Your task to perform on an android device: clear all cookies in the chrome app Image 0: 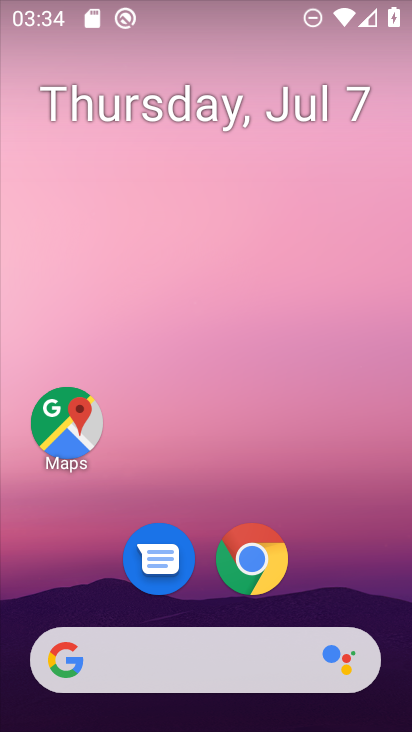
Step 0: drag from (367, 592) to (371, 156)
Your task to perform on an android device: clear all cookies in the chrome app Image 1: 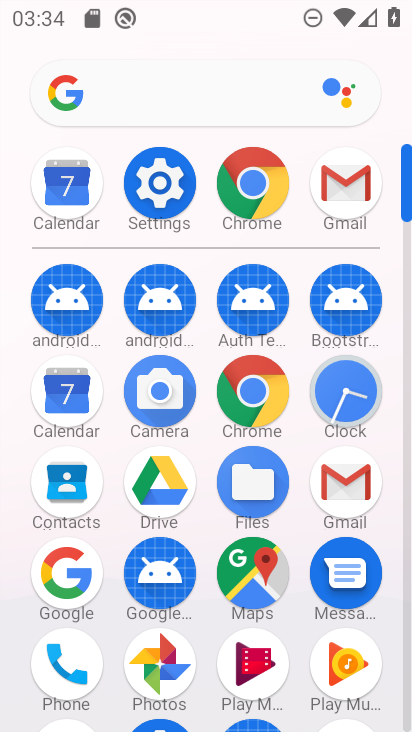
Step 1: click (268, 392)
Your task to perform on an android device: clear all cookies in the chrome app Image 2: 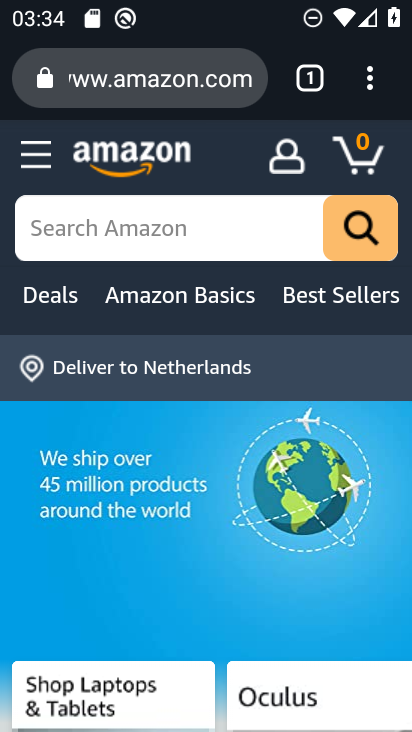
Step 2: click (370, 90)
Your task to perform on an android device: clear all cookies in the chrome app Image 3: 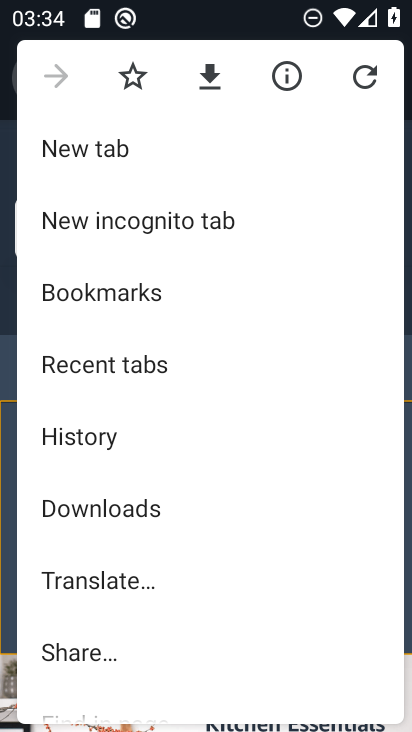
Step 3: drag from (339, 540) to (346, 451)
Your task to perform on an android device: clear all cookies in the chrome app Image 4: 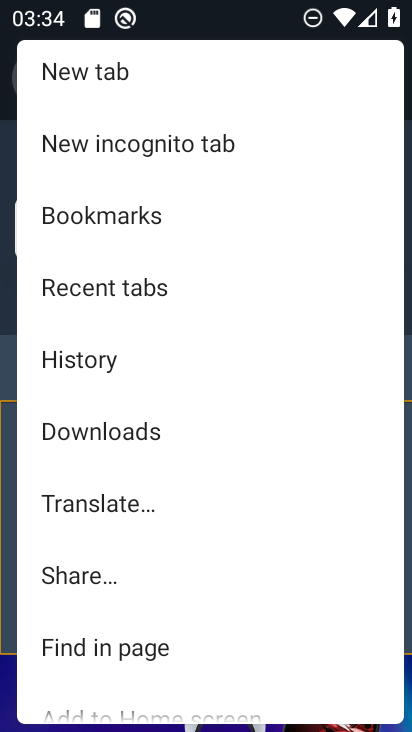
Step 4: drag from (346, 529) to (346, 428)
Your task to perform on an android device: clear all cookies in the chrome app Image 5: 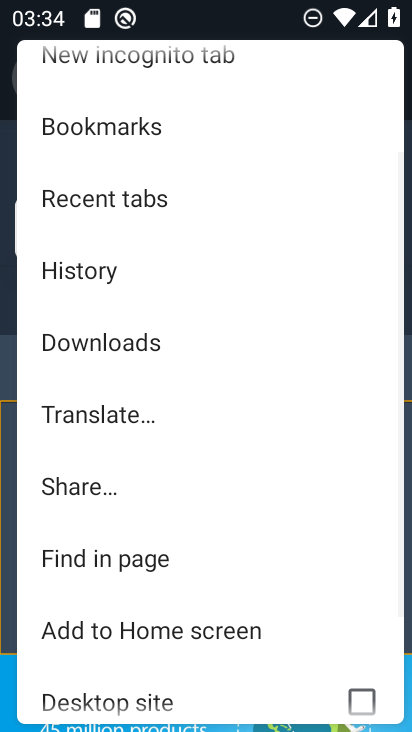
Step 5: drag from (347, 516) to (350, 425)
Your task to perform on an android device: clear all cookies in the chrome app Image 6: 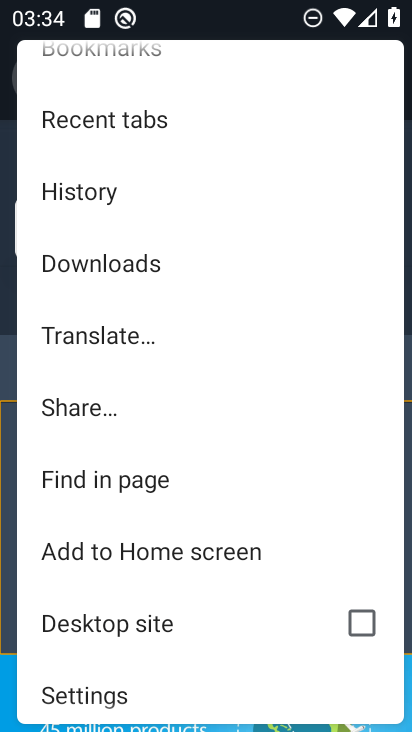
Step 6: drag from (340, 519) to (341, 429)
Your task to perform on an android device: clear all cookies in the chrome app Image 7: 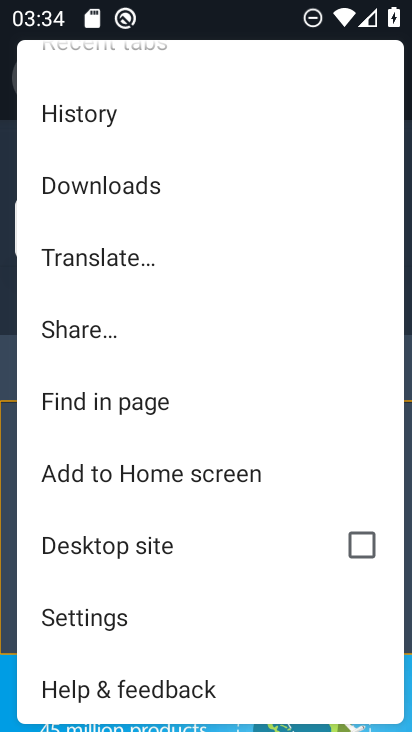
Step 7: drag from (302, 508) to (302, 402)
Your task to perform on an android device: clear all cookies in the chrome app Image 8: 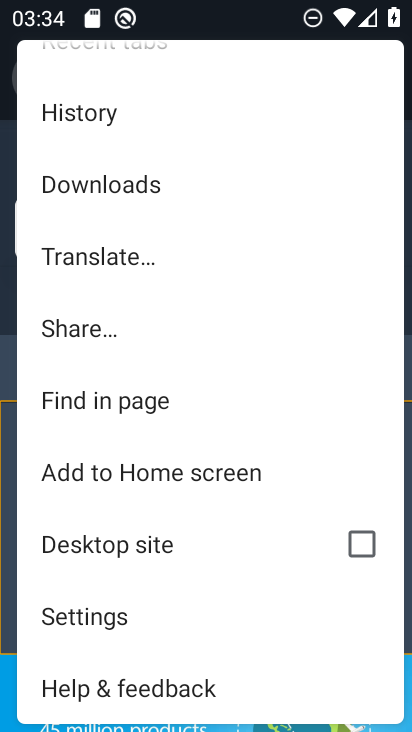
Step 8: click (126, 622)
Your task to perform on an android device: clear all cookies in the chrome app Image 9: 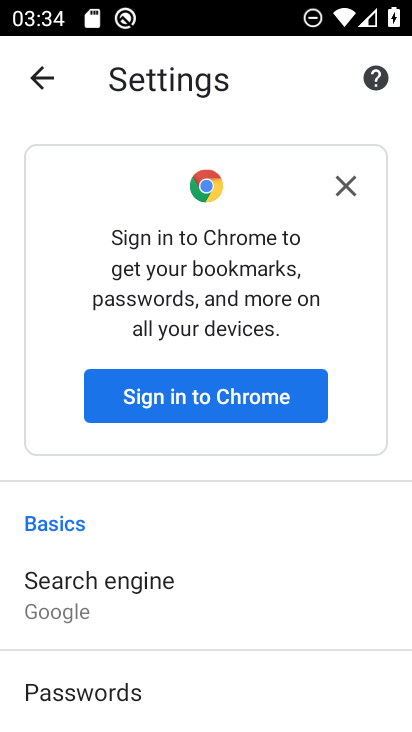
Step 9: drag from (262, 547) to (275, 450)
Your task to perform on an android device: clear all cookies in the chrome app Image 10: 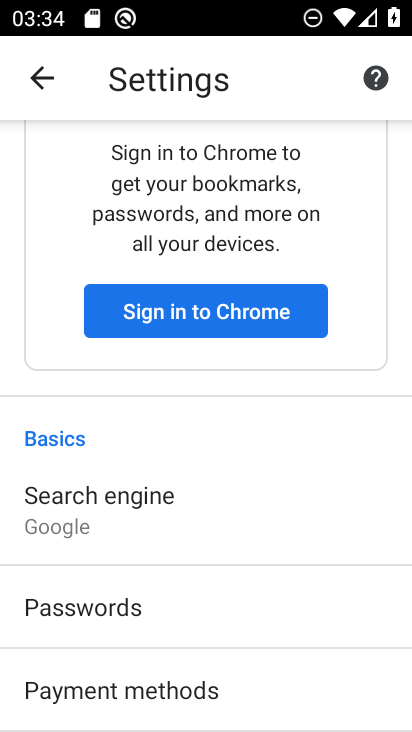
Step 10: drag from (278, 527) to (282, 419)
Your task to perform on an android device: clear all cookies in the chrome app Image 11: 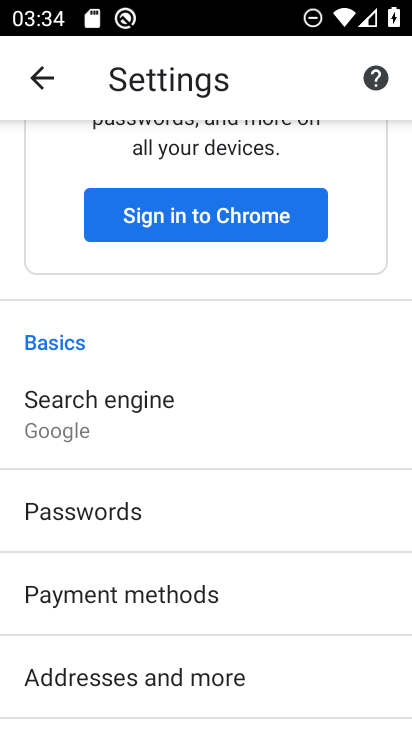
Step 11: drag from (294, 533) to (297, 429)
Your task to perform on an android device: clear all cookies in the chrome app Image 12: 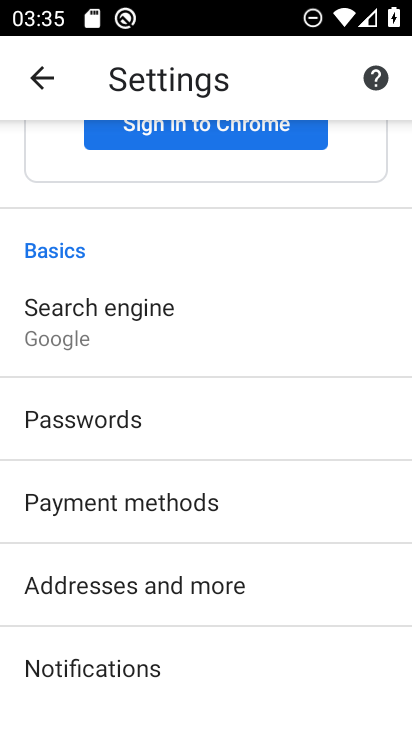
Step 12: drag from (293, 546) to (298, 439)
Your task to perform on an android device: clear all cookies in the chrome app Image 13: 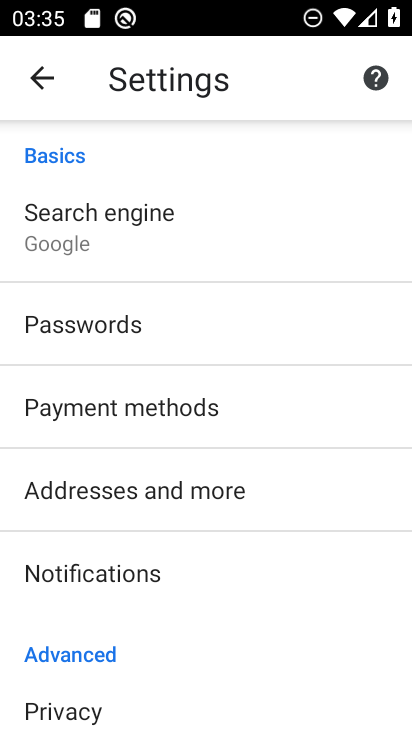
Step 13: drag from (328, 573) to (328, 473)
Your task to perform on an android device: clear all cookies in the chrome app Image 14: 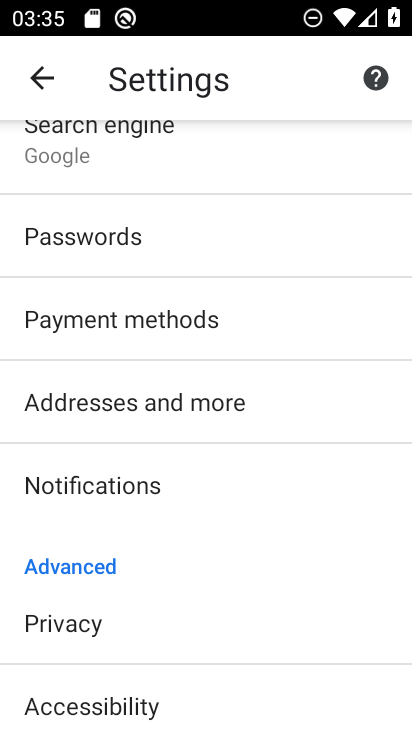
Step 14: drag from (320, 576) to (335, 407)
Your task to perform on an android device: clear all cookies in the chrome app Image 15: 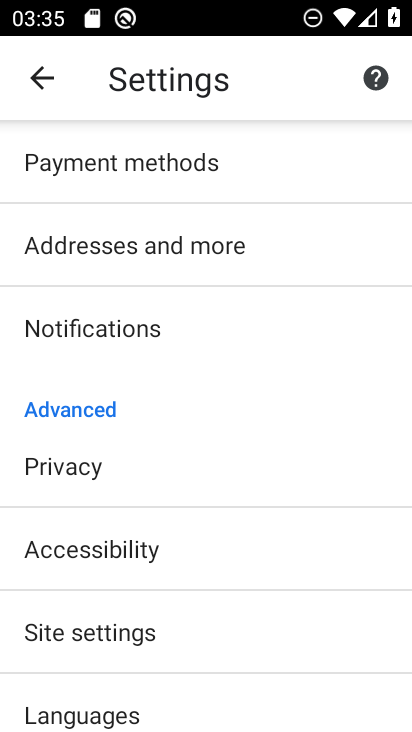
Step 15: drag from (312, 551) to (311, 433)
Your task to perform on an android device: clear all cookies in the chrome app Image 16: 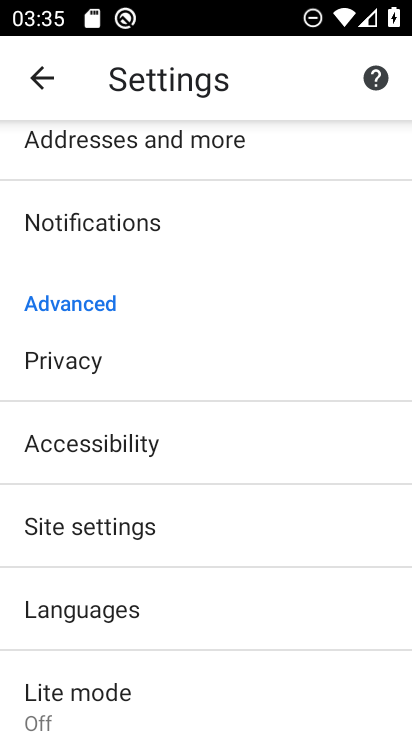
Step 16: click (202, 379)
Your task to perform on an android device: clear all cookies in the chrome app Image 17: 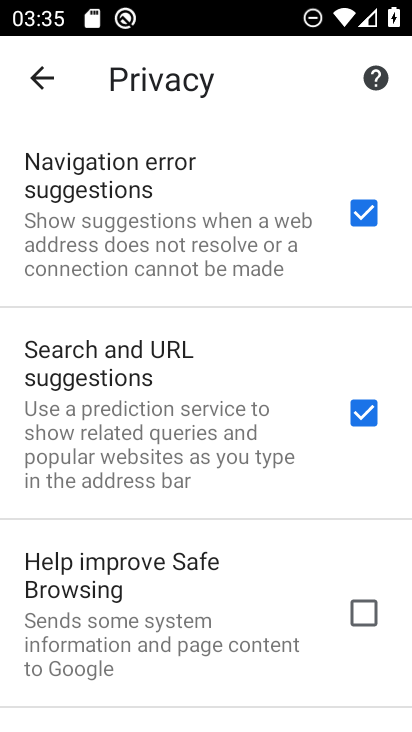
Step 17: drag from (297, 530) to (308, 456)
Your task to perform on an android device: clear all cookies in the chrome app Image 18: 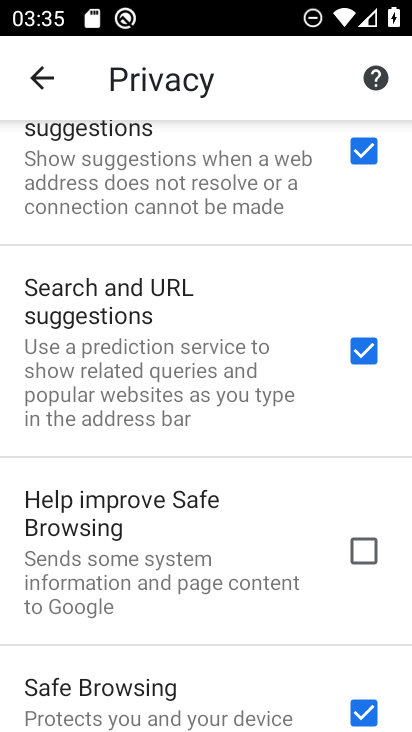
Step 18: drag from (295, 532) to (301, 467)
Your task to perform on an android device: clear all cookies in the chrome app Image 19: 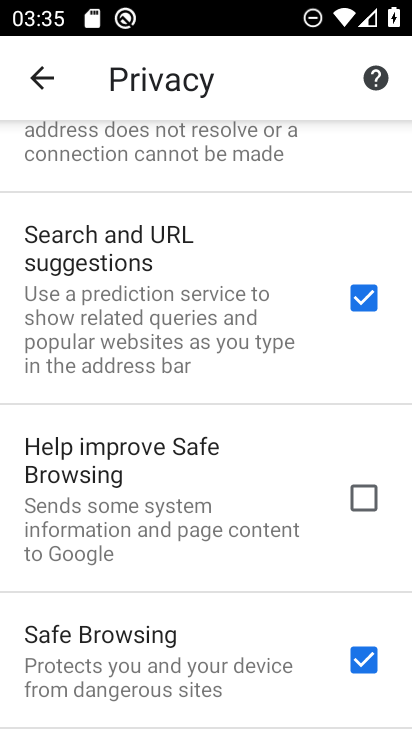
Step 19: drag from (310, 547) to (309, 460)
Your task to perform on an android device: clear all cookies in the chrome app Image 20: 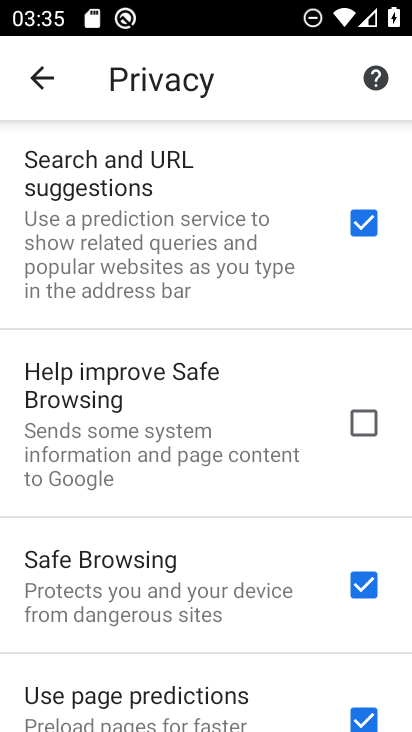
Step 20: drag from (295, 519) to (296, 431)
Your task to perform on an android device: clear all cookies in the chrome app Image 21: 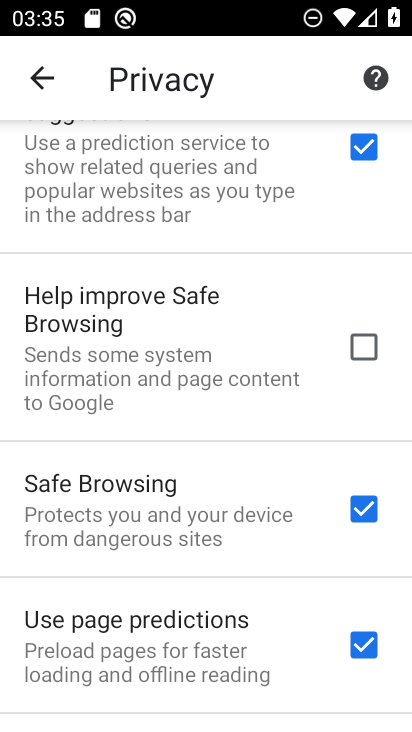
Step 21: drag from (297, 539) to (307, 453)
Your task to perform on an android device: clear all cookies in the chrome app Image 22: 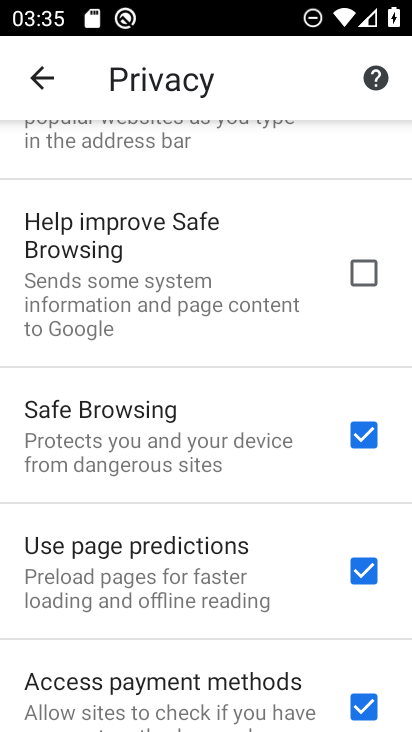
Step 22: drag from (291, 572) to (293, 494)
Your task to perform on an android device: clear all cookies in the chrome app Image 23: 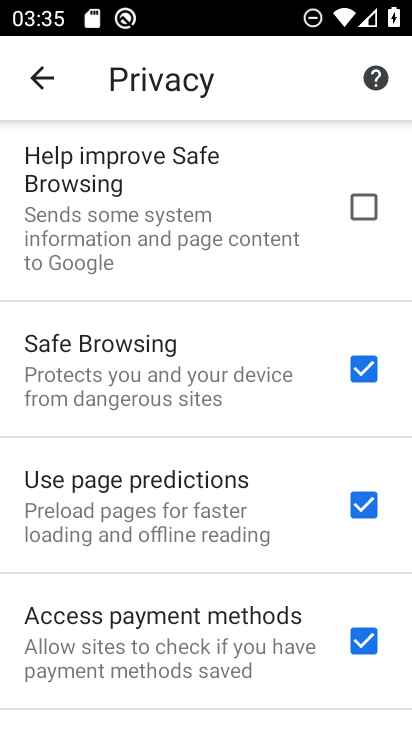
Step 23: drag from (297, 583) to (300, 477)
Your task to perform on an android device: clear all cookies in the chrome app Image 24: 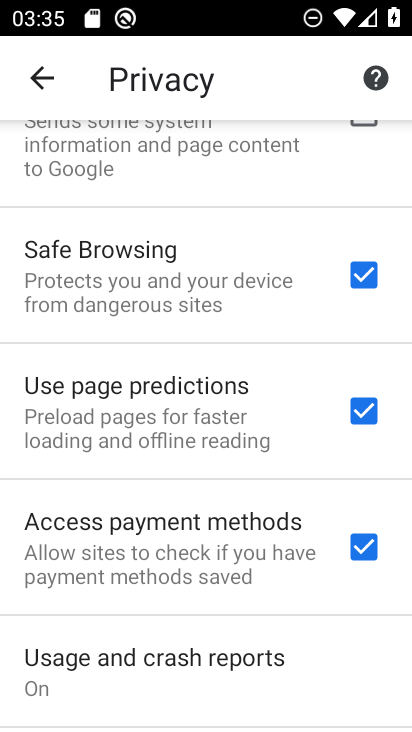
Step 24: drag from (293, 588) to (301, 494)
Your task to perform on an android device: clear all cookies in the chrome app Image 25: 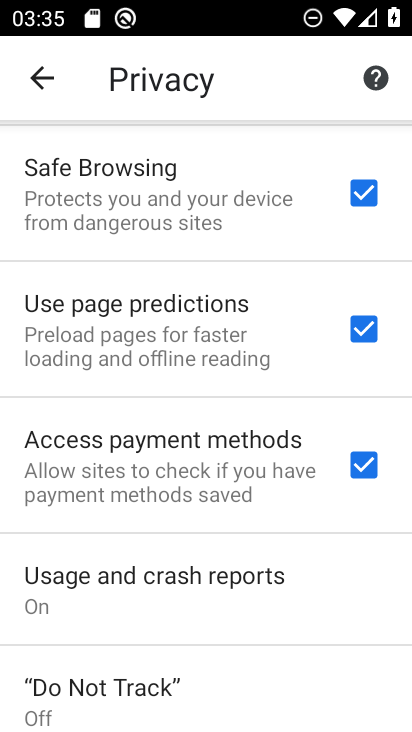
Step 25: drag from (302, 602) to (311, 488)
Your task to perform on an android device: clear all cookies in the chrome app Image 26: 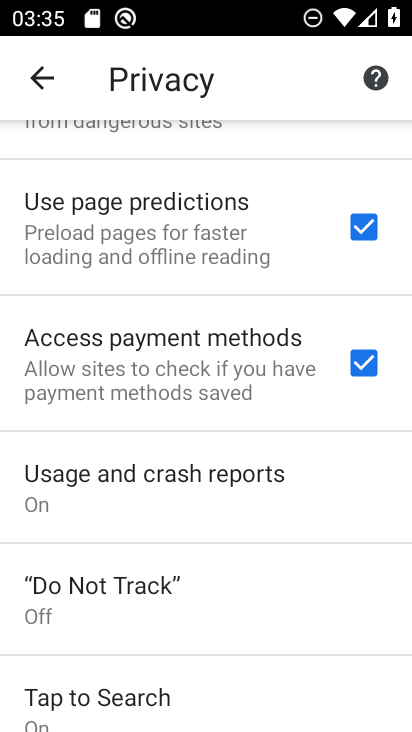
Step 26: drag from (311, 603) to (307, 505)
Your task to perform on an android device: clear all cookies in the chrome app Image 27: 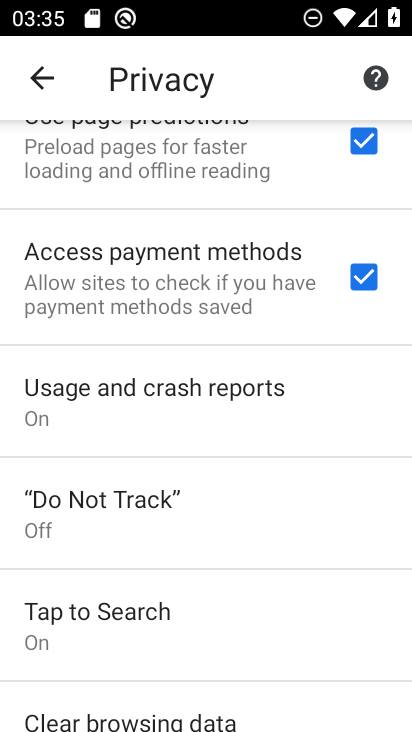
Step 27: drag from (292, 601) to (293, 491)
Your task to perform on an android device: clear all cookies in the chrome app Image 28: 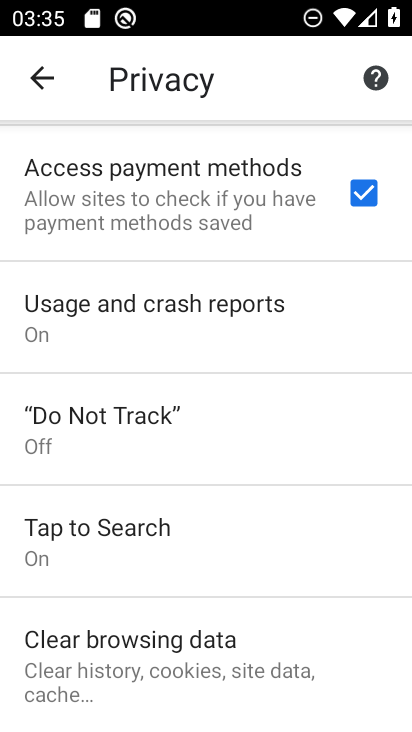
Step 28: click (278, 645)
Your task to perform on an android device: clear all cookies in the chrome app Image 29: 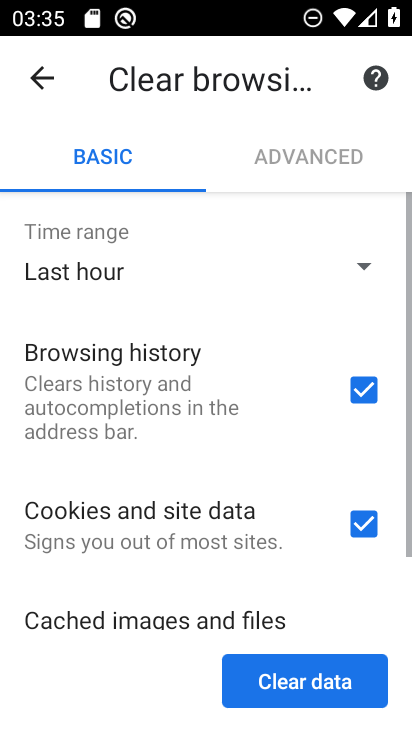
Step 29: click (298, 678)
Your task to perform on an android device: clear all cookies in the chrome app Image 30: 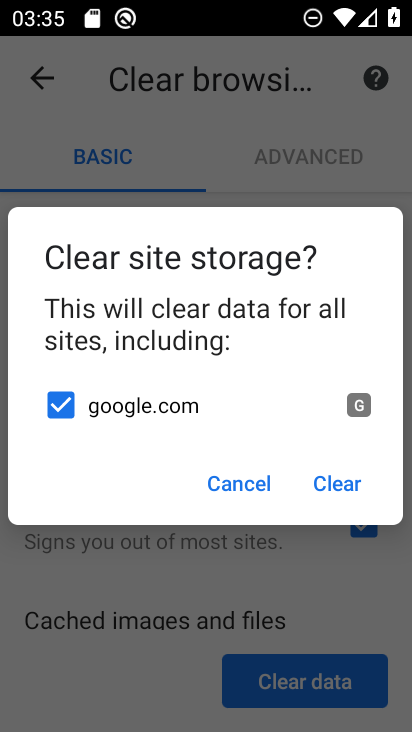
Step 30: click (322, 496)
Your task to perform on an android device: clear all cookies in the chrome app Image 31: 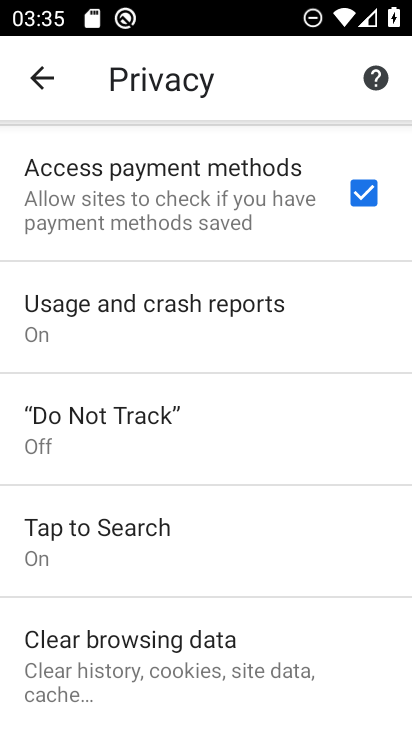
Step 31: task complete